Your task to perform on an android device: Go to Reddit.com Image 0: 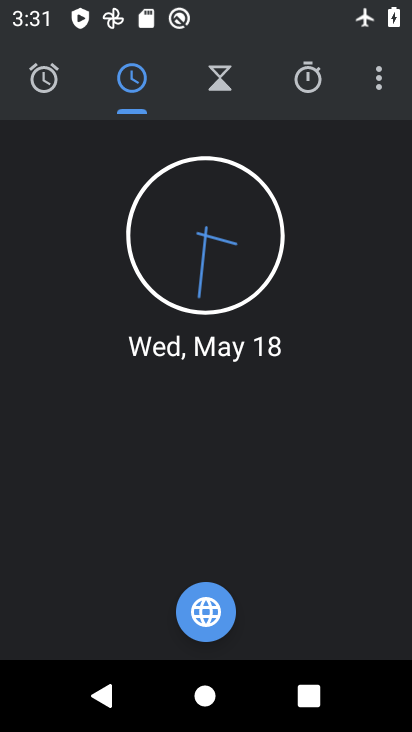
Step 0: press home button
Your task to perform on an android device: Go to Reddit.com Image 1: 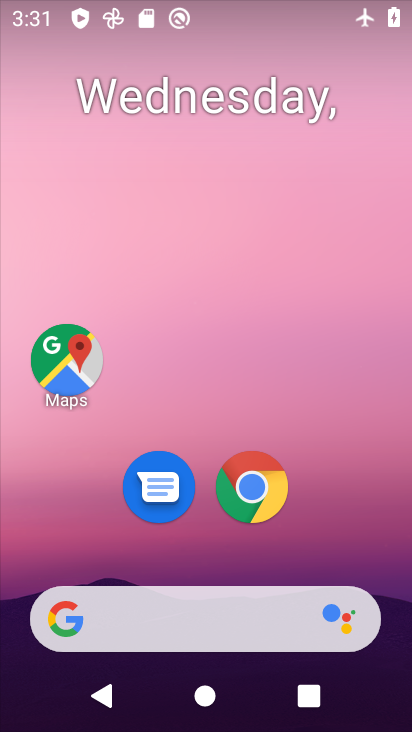
Step 1: drag from (377, 552) to (383, 157)
Your task to perform on an android device: Go to Reddit.com Image 2: 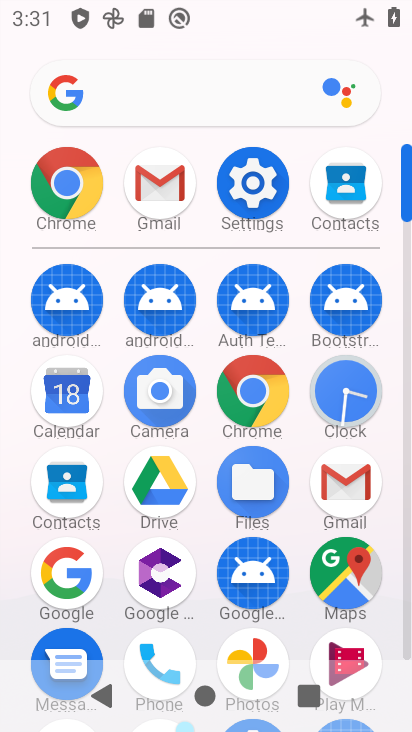
Step 2: click (264, 398)
Your task to perform on an android device: Go to Reddit.com Image 3: 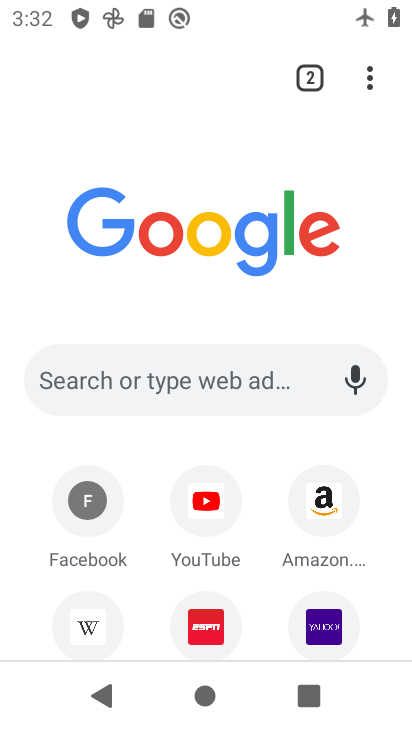
Step 3: click (242, 399)
Your task to perform on an android device: Go to Reddit.com Image 4: 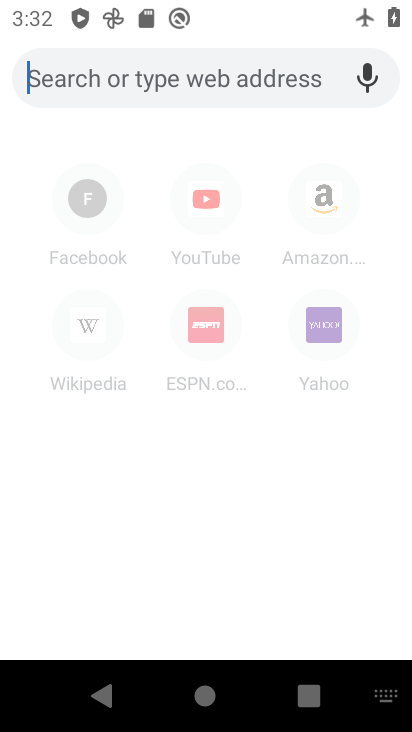
Step 4: type "reddit.com"
Your task to perform on an android device: Go to Reddit.com Image 5: 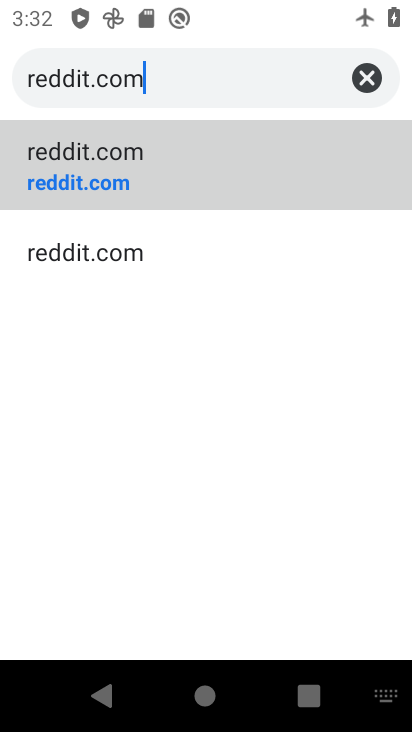
Step 5: click (203, 182)
Your task to perform on an android device: Go to Reddit.com Image 6: 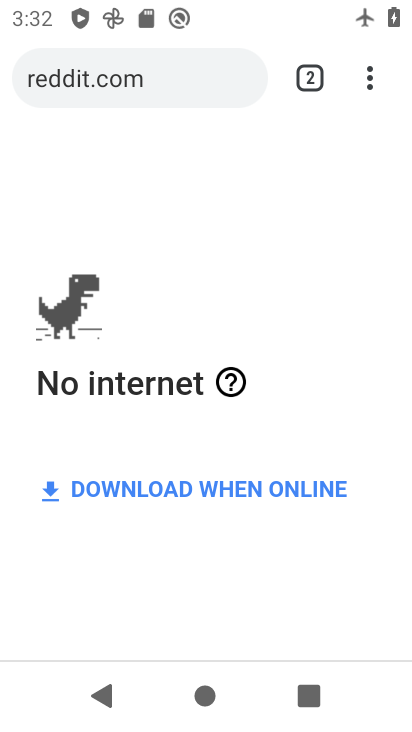
Step 6: task complete